Your task to perform on an android device: Go to Yahoo.com Image 0: 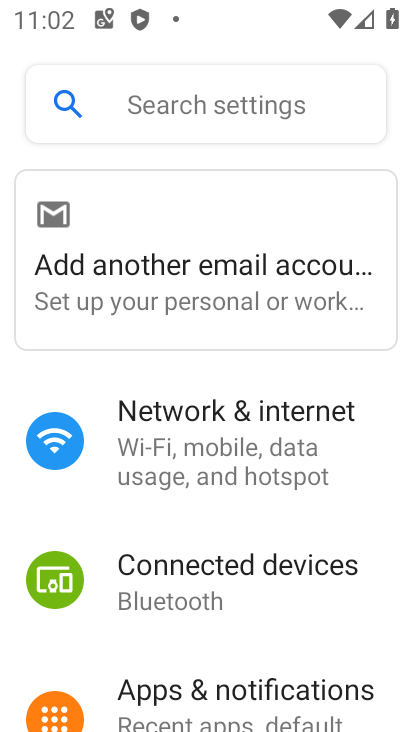
Step 0: press home button
Your task to perform on an android device: Go to Yahoo.com Image 1: 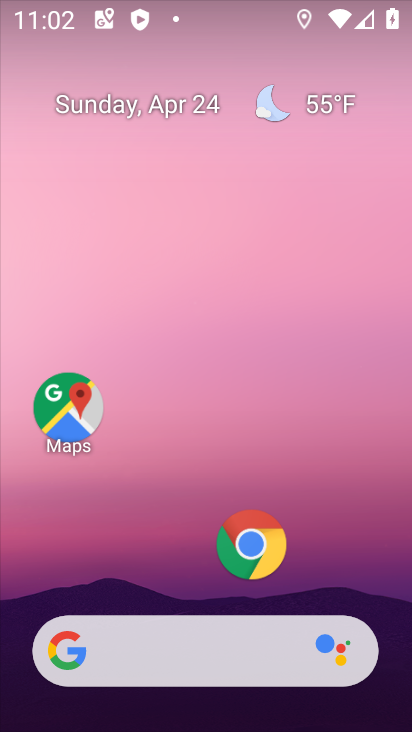
Step 1: click (233, 547)
Your task to perform on an android device: Go to Yahoo.com Image 2: 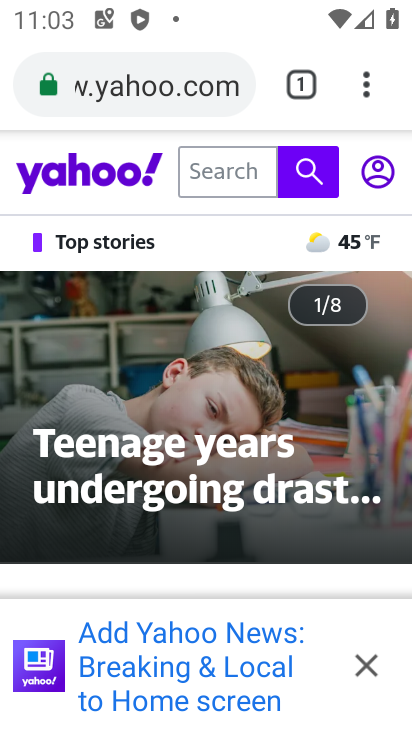
Step 2: task complete